Your task to perform on an android device: Is it going to rain today? Image 0: 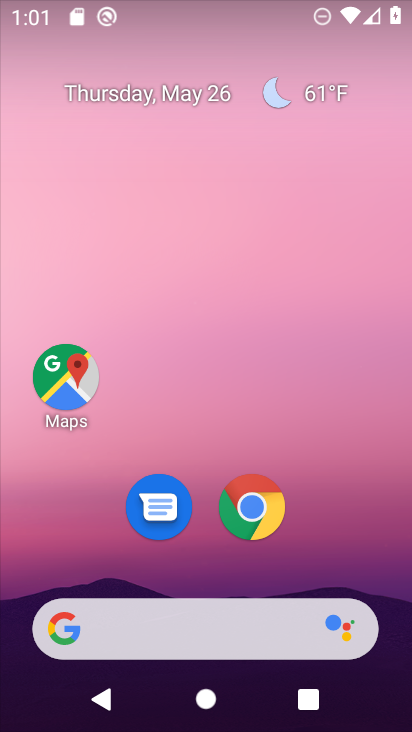
Step 0: click (342, 559)
Your task to perform on an android device: Is it going to rain today? Image 1: 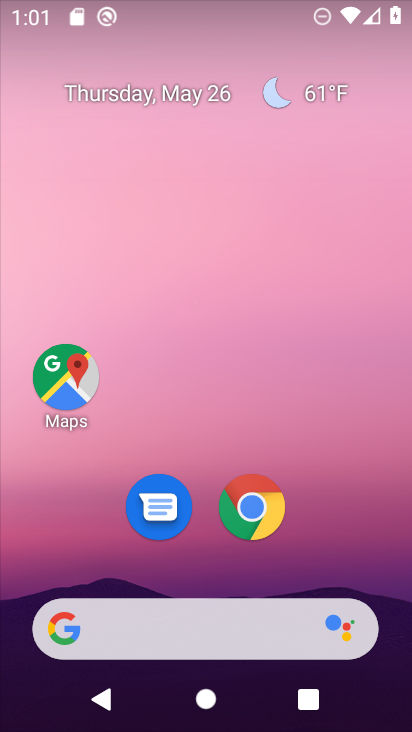
Step 1: click (226, 629)
Your task to perform on an android device: Is it going to rain today? Image 2: 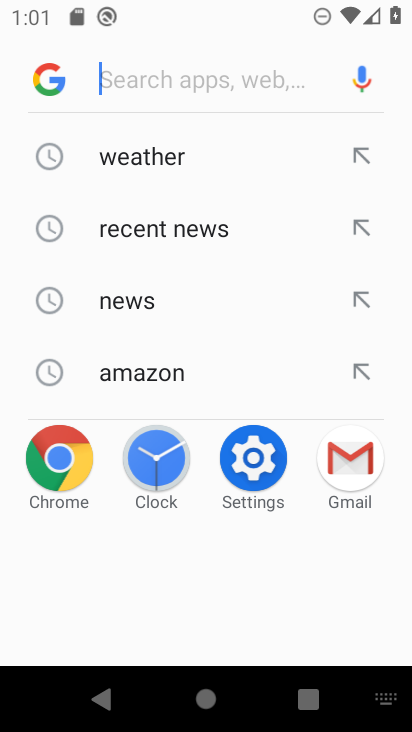
Step 2: click (155, 157)
Your task to perform on an android device: Is it going to rain today? Image 3: 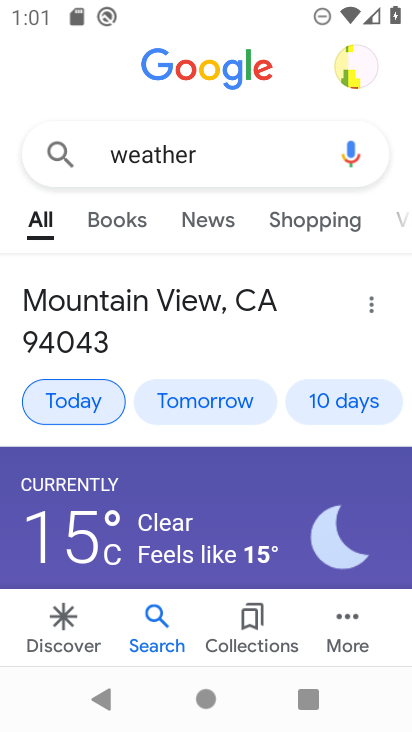
Step 3: task complete